Your task to perform on an android device: Open internet settings Image 0: 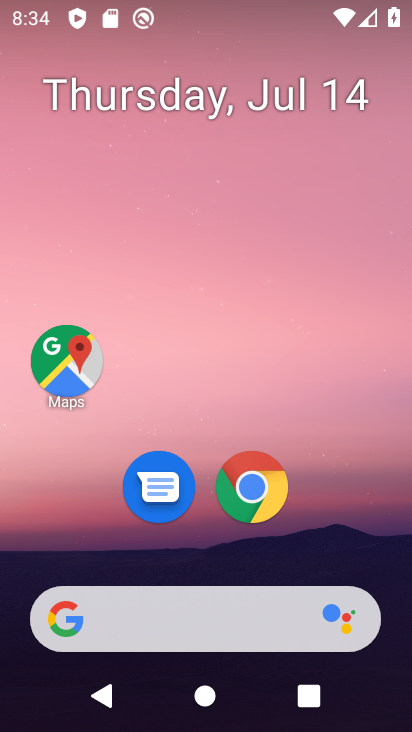
Step 0: drag from (134, 515) to (244, 13)
Your task to perform on an android device: Open internet settings Image 1: 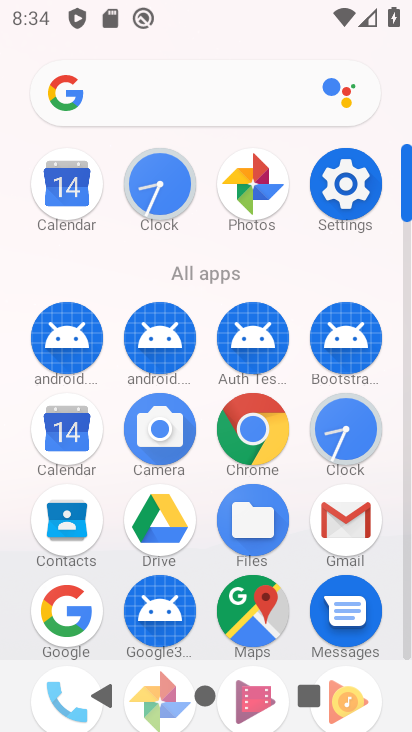
Step 1: click (372, 217)
Your task to perform on an android device: Open internet settings Image 2: 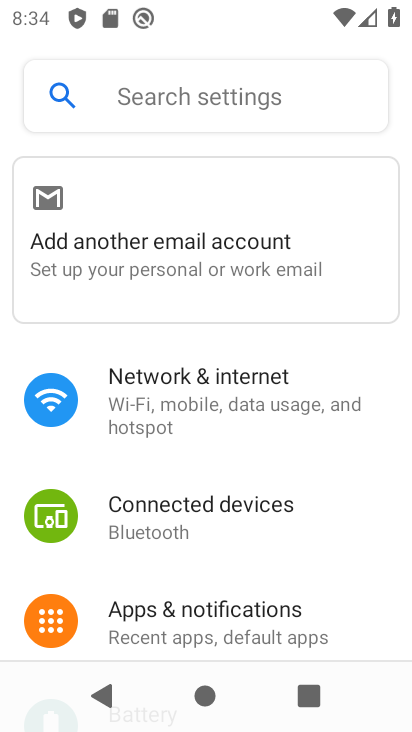
Step 2: click (268, 390)
Your task to perform on an android device: Open internet settings Image 3: 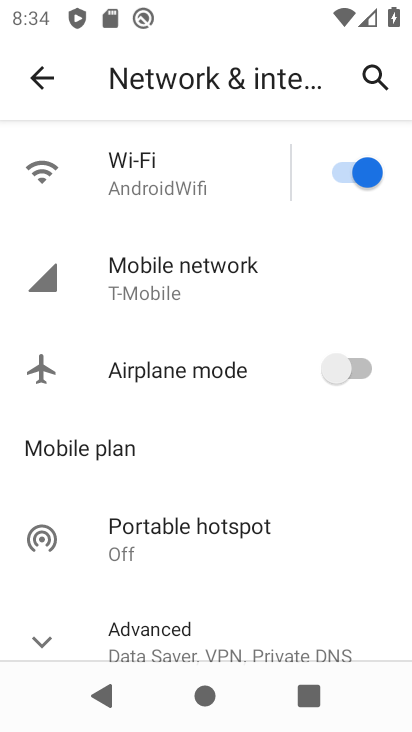
Step 3: task complete